Your task to perform on an android device: add a contact in the contacts app Image 0: 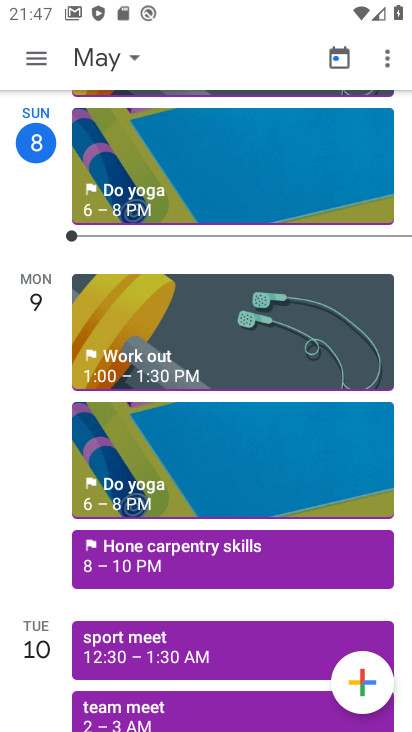
Step 0: press home button
Your task to perform on an android device: add a contact in the contacts app Image 1: 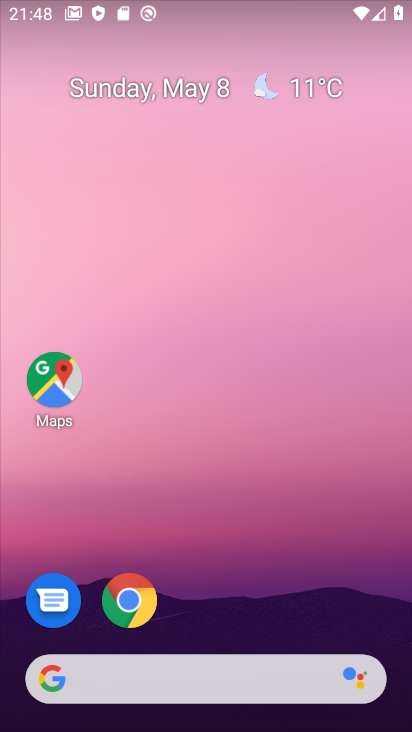
Step 1: drag from (246, 616) to (231, 176)
Your task to perform on an android device: add a contact in the contacts app Image 2: 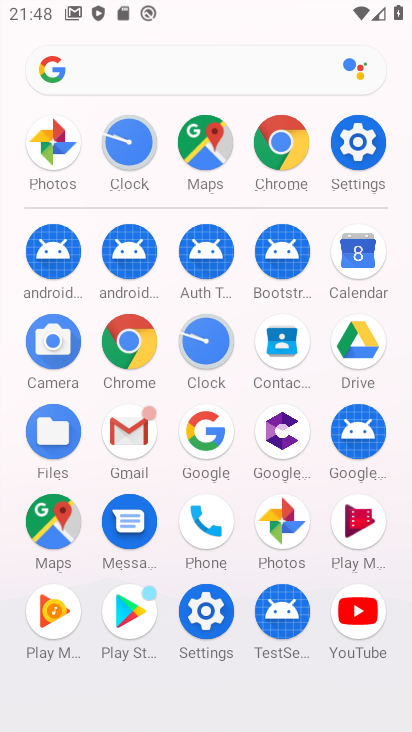
Step 2: click (299, 348)
Your task to perform on an android device: add a contact in the contacts app Image 3: 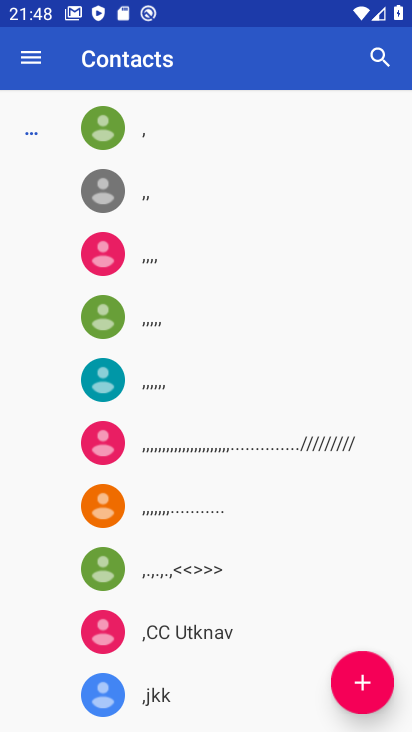
Step 3: click (371, 694)
Your task to perform on an android device: add a contact in the contacts app Image 4: 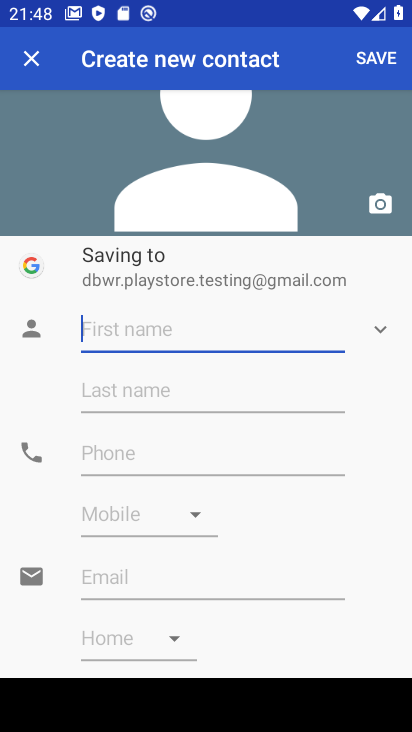
Step 4: type ""
Your task to perform on an android device: add a contact in the contacts app Image 5: 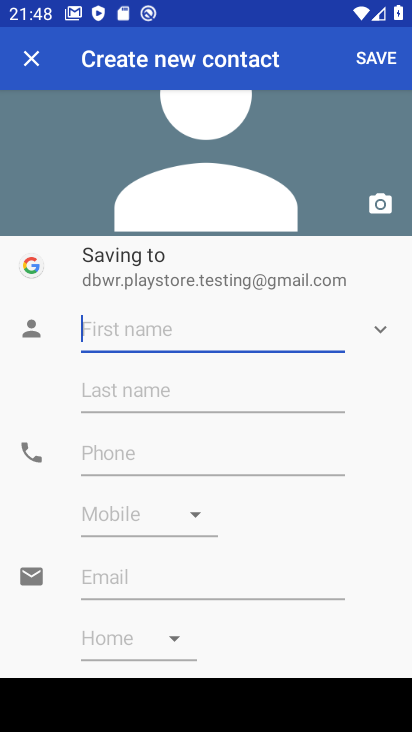
Step 5: type ",,,,,"
Your task to perform on an android device: add a contact in the contacts app Image 6: 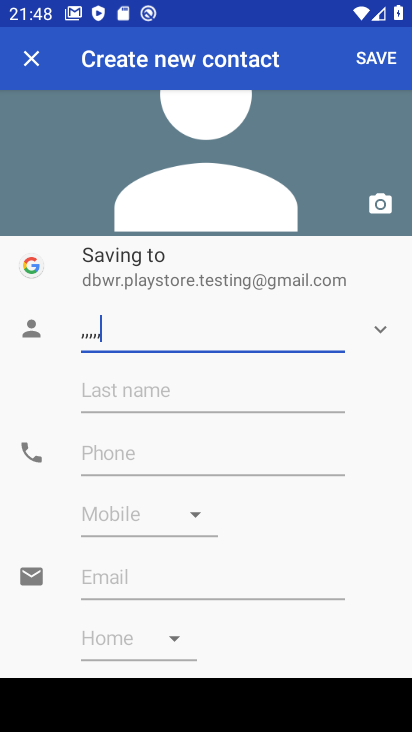
Step 6: click (118, 444)
Your task to perform on an android device: add a contact in the contacts app Image 7: 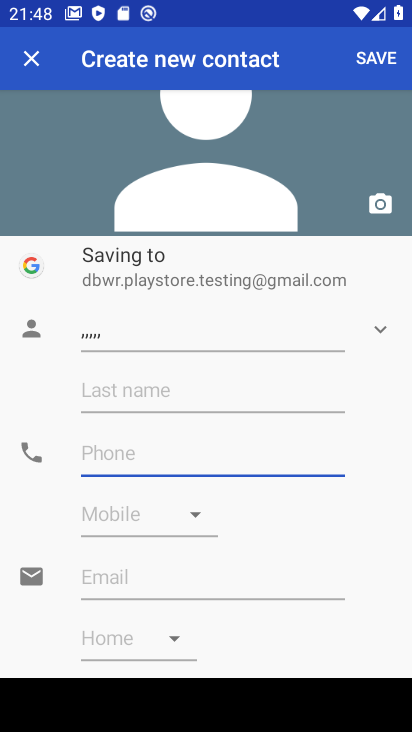
Step 7: type "6453423145"
Your task to perform on an android device: add a contact in the contacts app Image 8: 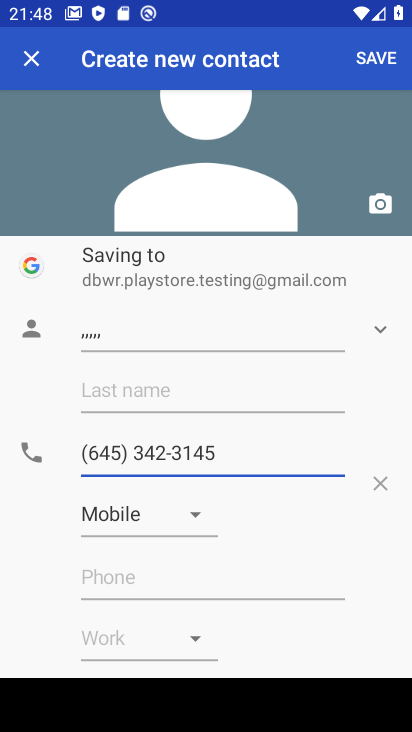
Step 8: click (375, 68)
Your task to perform on an android device: add a contact in the contacts app Image 9: 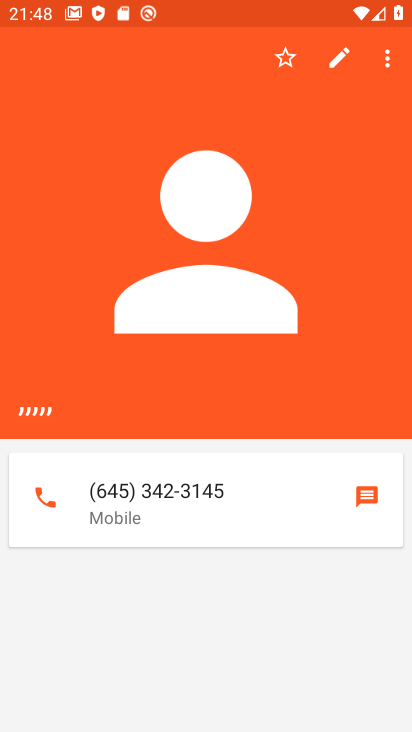
Step 9: task complete